Your task to perform on an android device: turn on bluetooth scan Image 0: 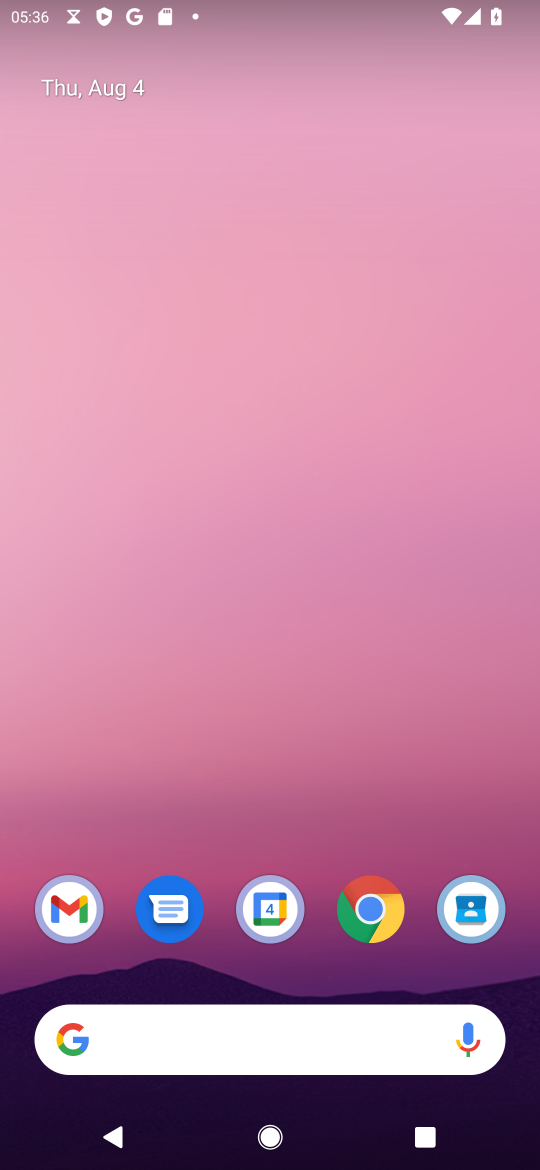
Step 0: drag from (296, 999) to (405, 150)
Your task to perform on an android device: turn on bluetooth scan Image 1: 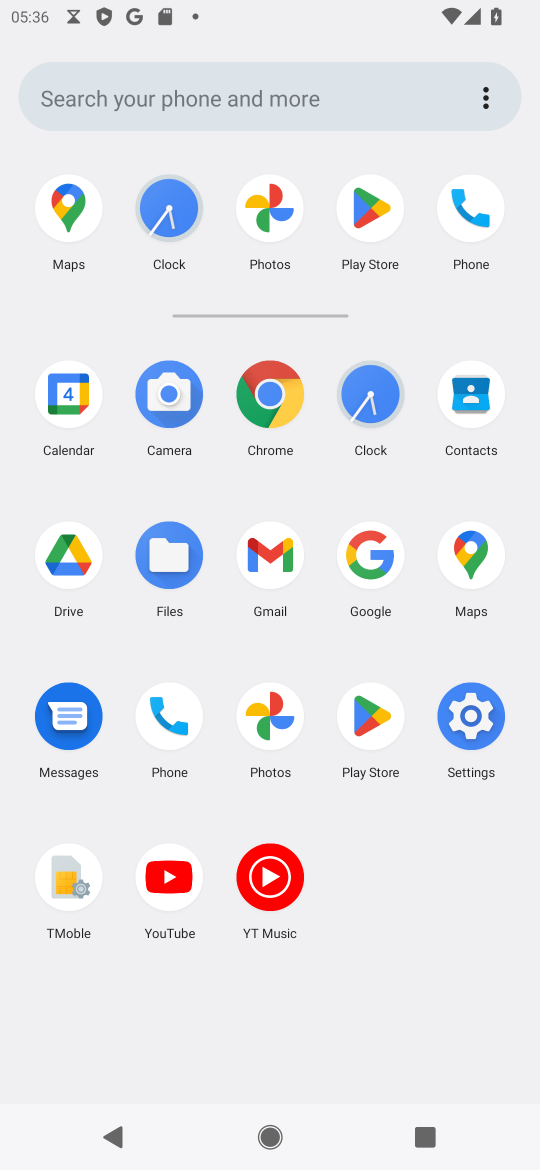
Step 1: click (468, 725)
Your task to perform on an android device: turn on bluetooth scan Image 2: 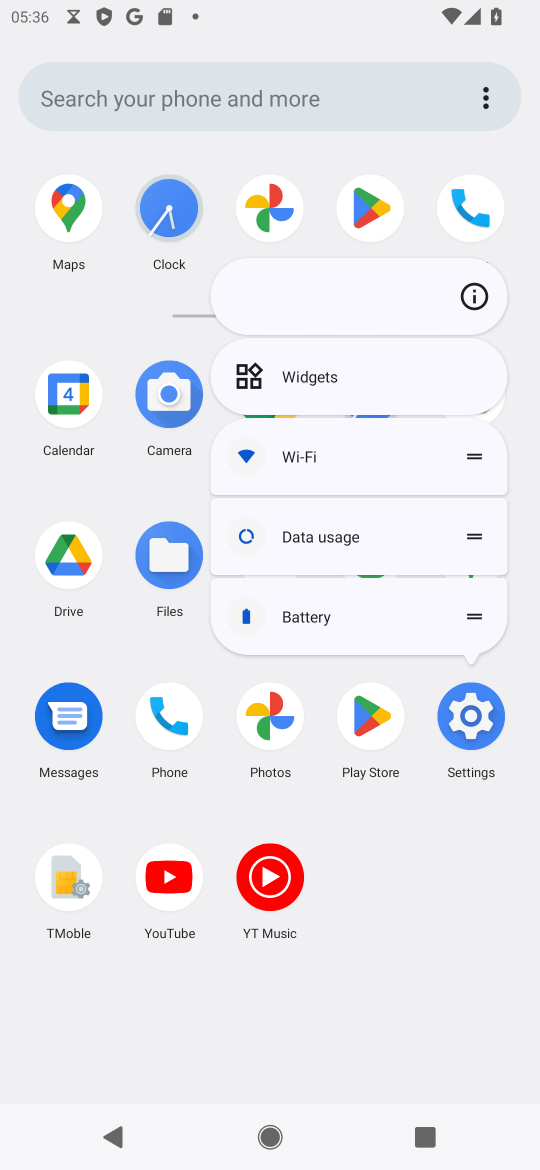
Step 2: click (468, 726)
Your task to perform on an android device: turn on bluetooth scan Image 3: 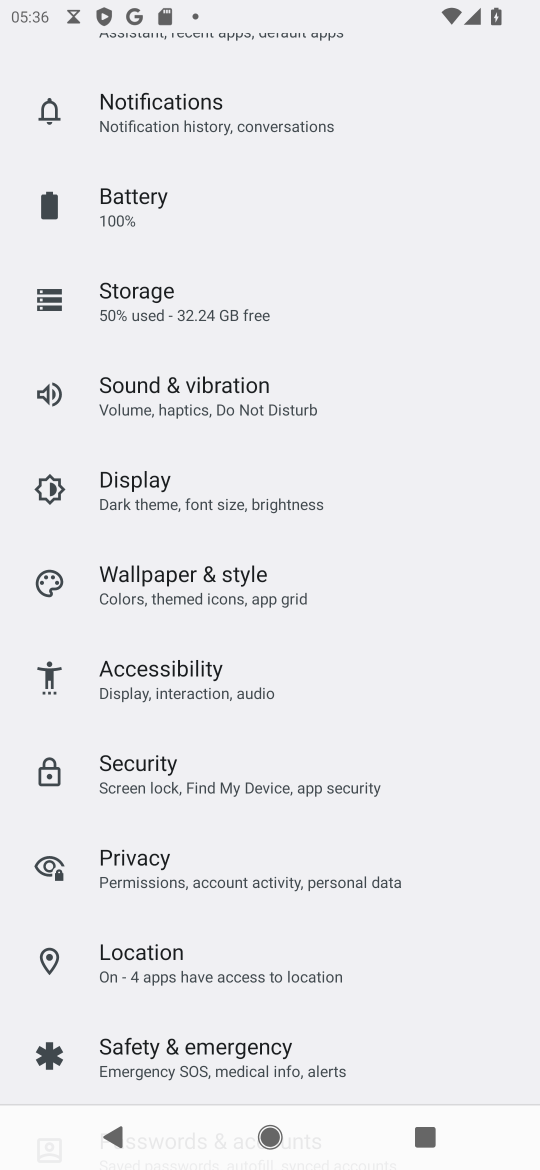
Step 3: click (134, 976)
Your task to perform on an android device: turn on bluetooth scan Image 4: 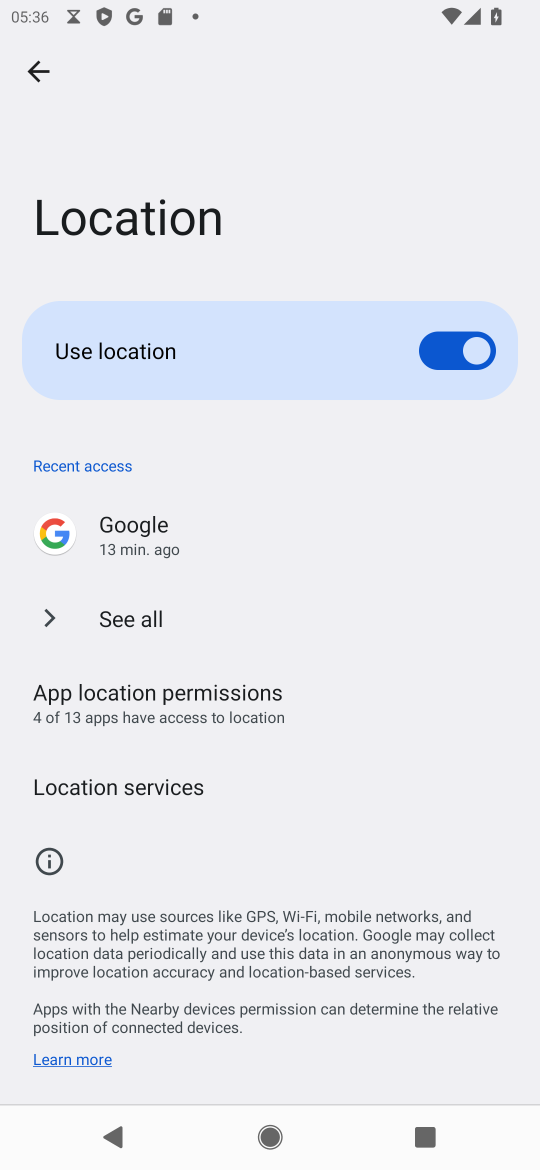
Step 4: drag from (283, 850) to (329, 166)
Your task to perform on an android device: turn on bluetooth scan Image 5: 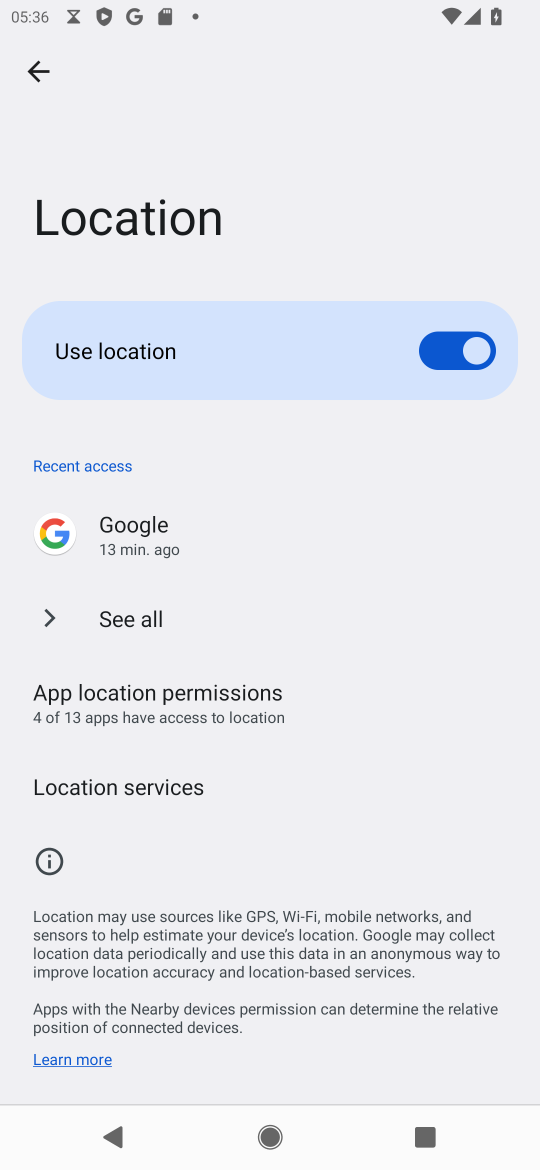
Step 5: click (159, 781)
Your task to perform on an android device: turn on bluetooth scan Image 6: 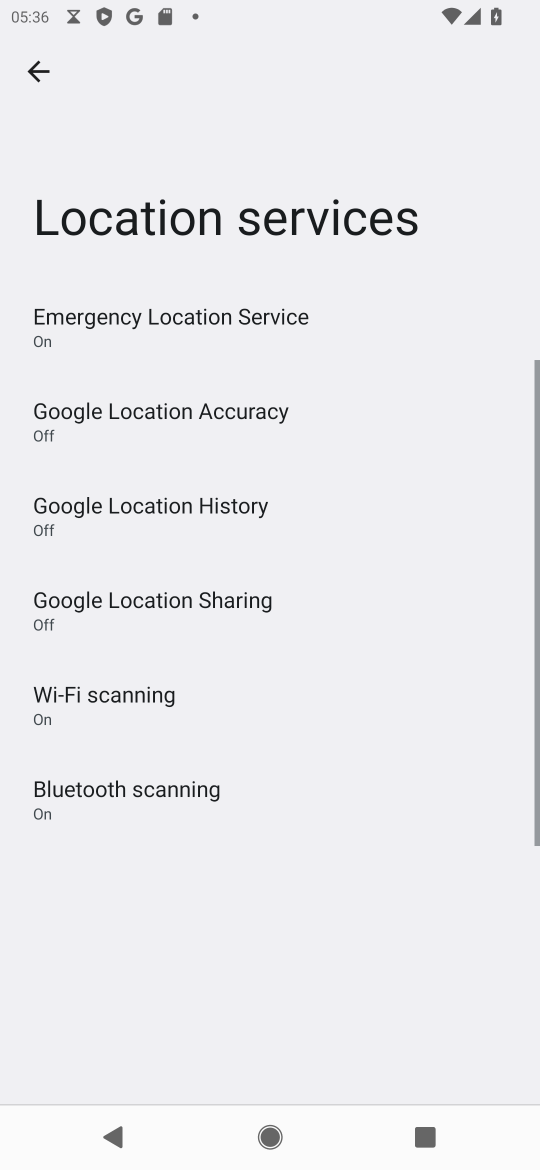
Step 6: click (170, 778)
Your task to perform on an android device: turn on bluetooth scan Image 7: 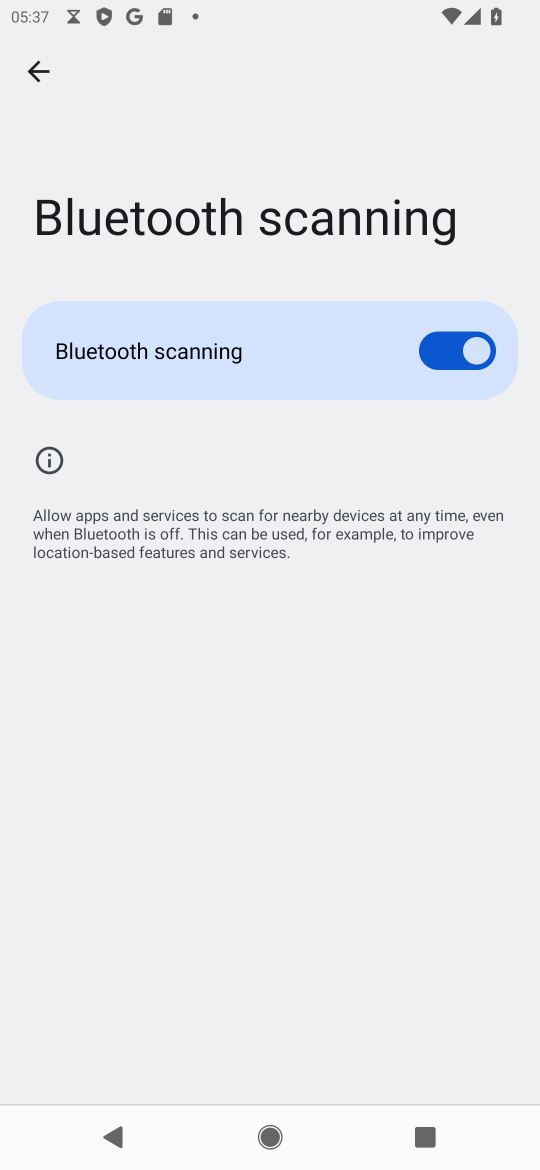
Step 7: task complete